Your task to perform on an android device: find photos in the google photos app Image 0: 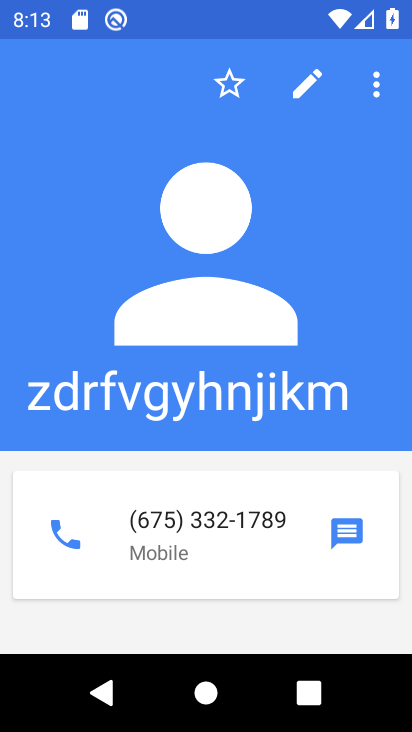
Step 0: press home button
Your task to perform on an android device: find photos in the google photos app Image 1: 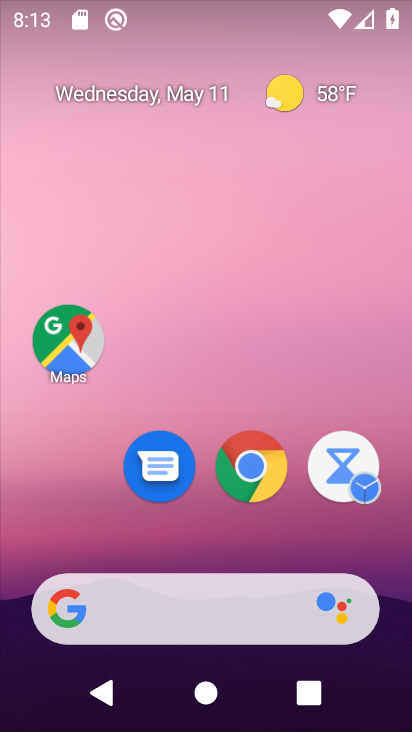
Step 1: drag from (217, 561) to (245, 39)
Your task to perform on an android device: find photos in the google photos app Image 2: 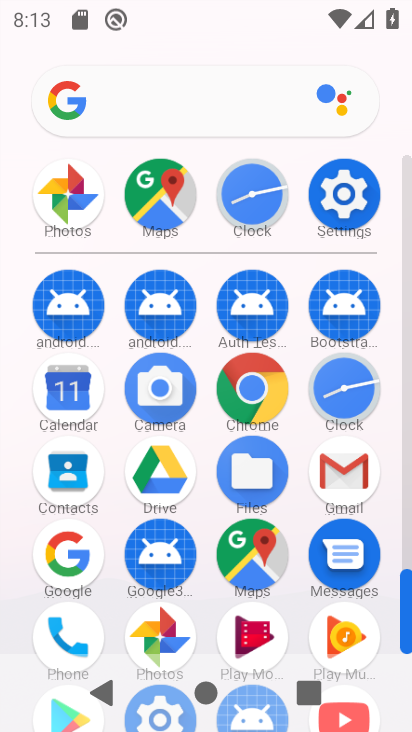
Step 2: click (149, 621)
Your task to perform on an android device: find photos in the google photos app Image 3: 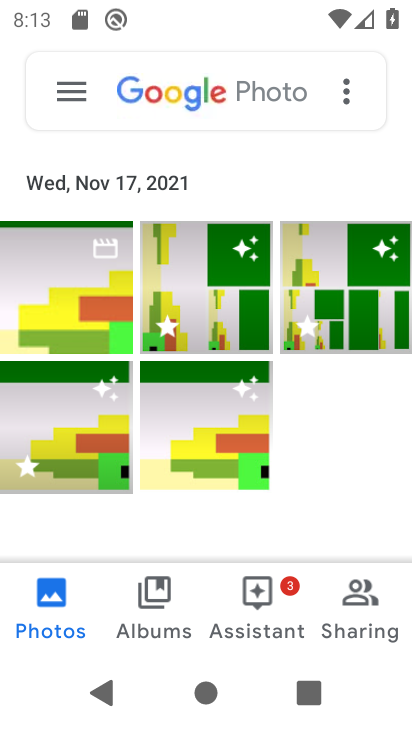
Step 3: task complete